Your task to perform on an android device: open app "Duolingo: language lessons" Image 0: 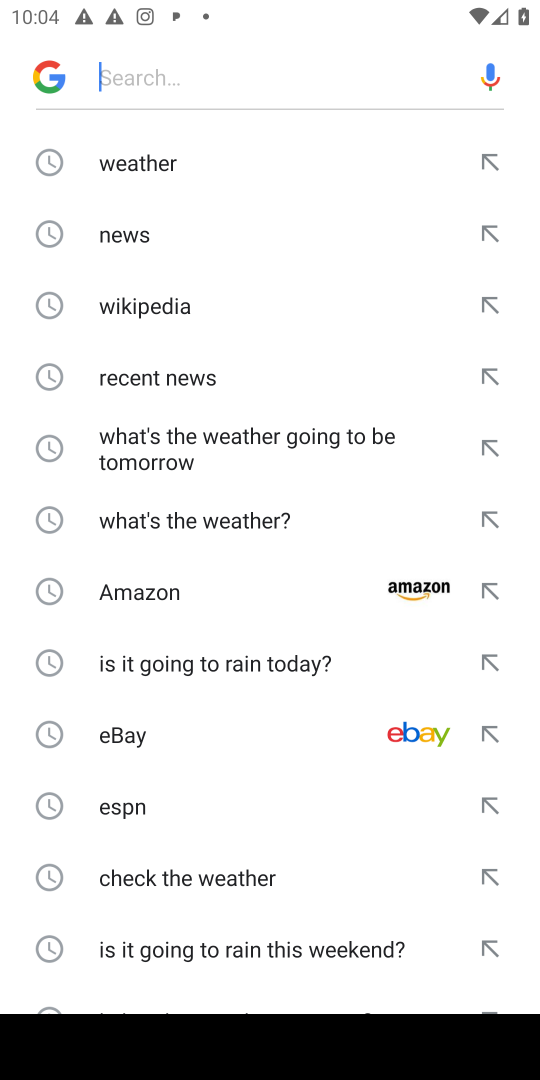
Step 0: press home button
Your task to perform on an android device: open app "Duolingo: language lessons" Image 1: 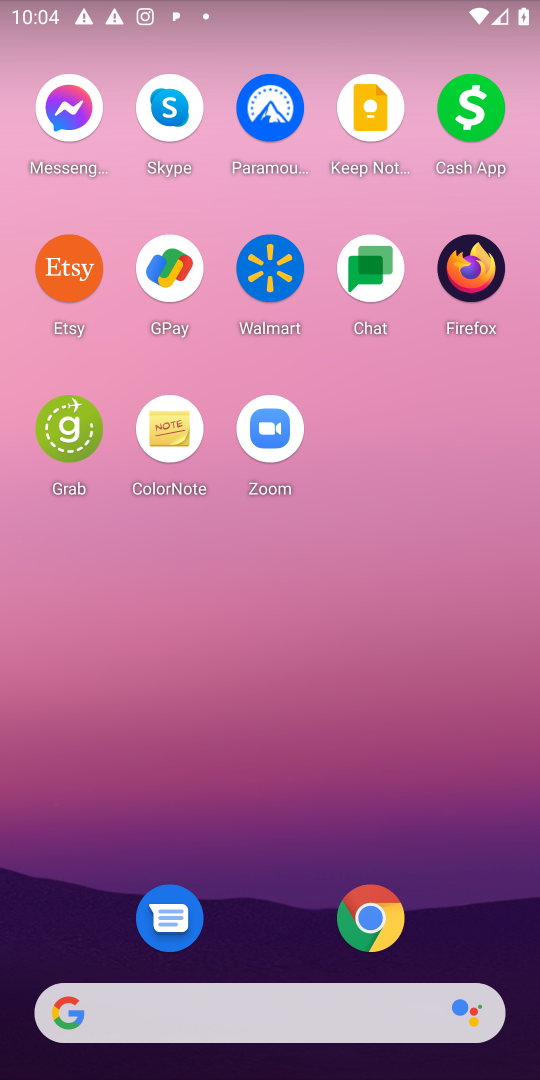
Step 1: press home button
Your task to perform on an android device: open app "Duolingo: language lessons" Image 2: 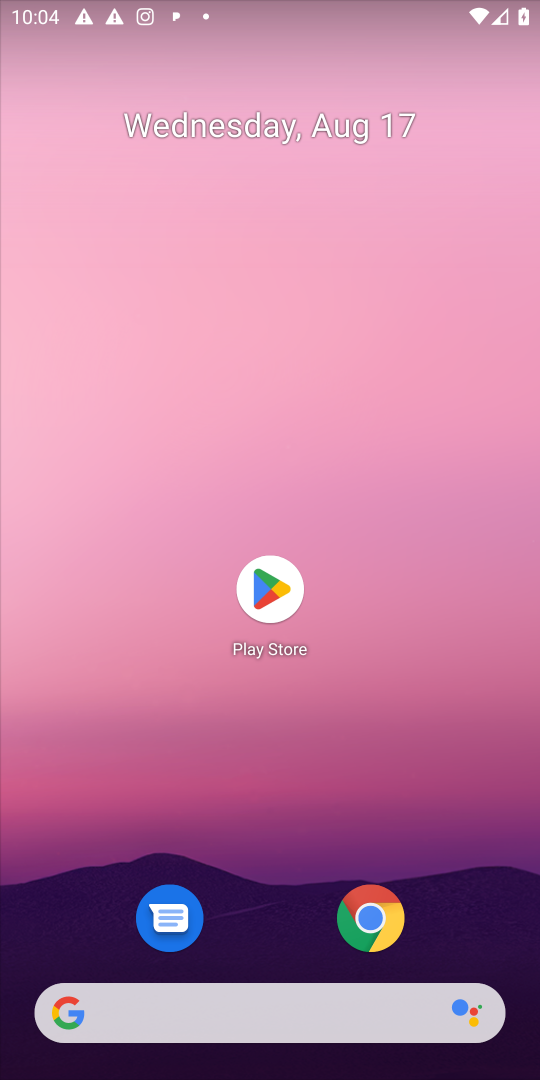
Step 2: click (264, 587)
Your task to perform on an android device: open app "Duolingo: language lessons" Image 3: 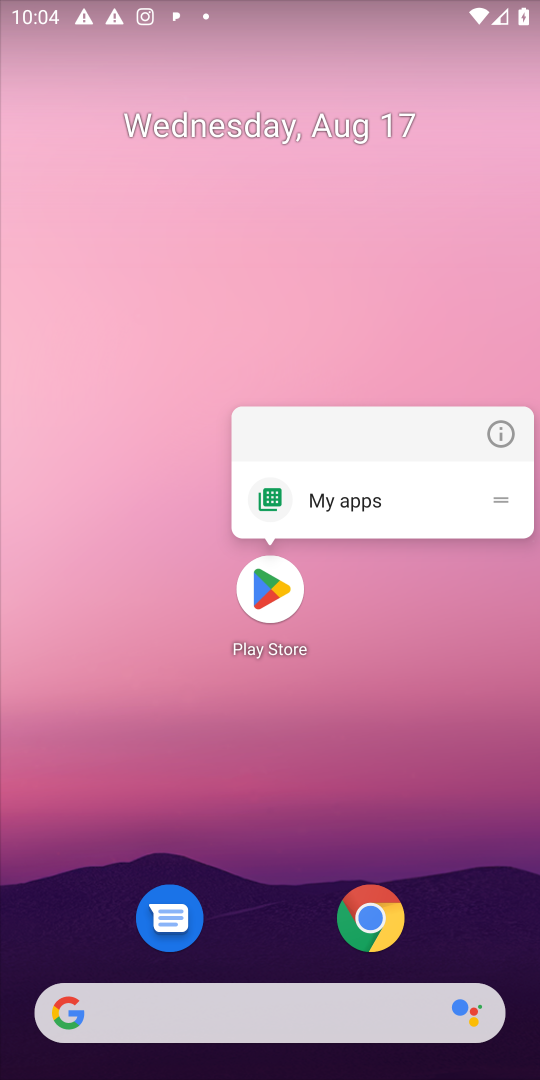
Step 3: click (264, 590)
Your task to perform on an android device: open app "Duolingo: language lessons" Image 4: 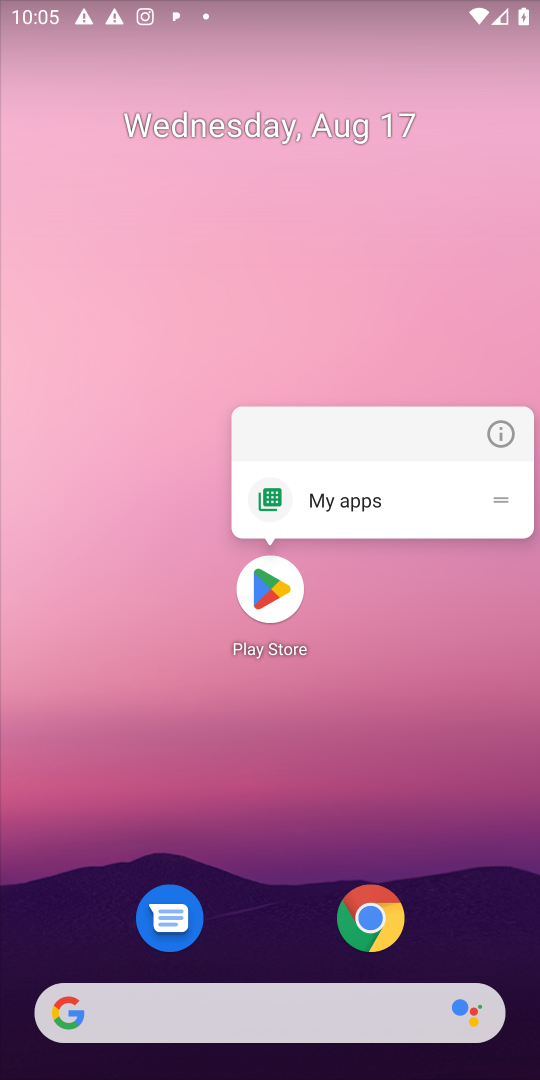
Step 4: click (264, 591)
Your task to perform on an android device: open app "Duolingo: language lessons" Image 5: 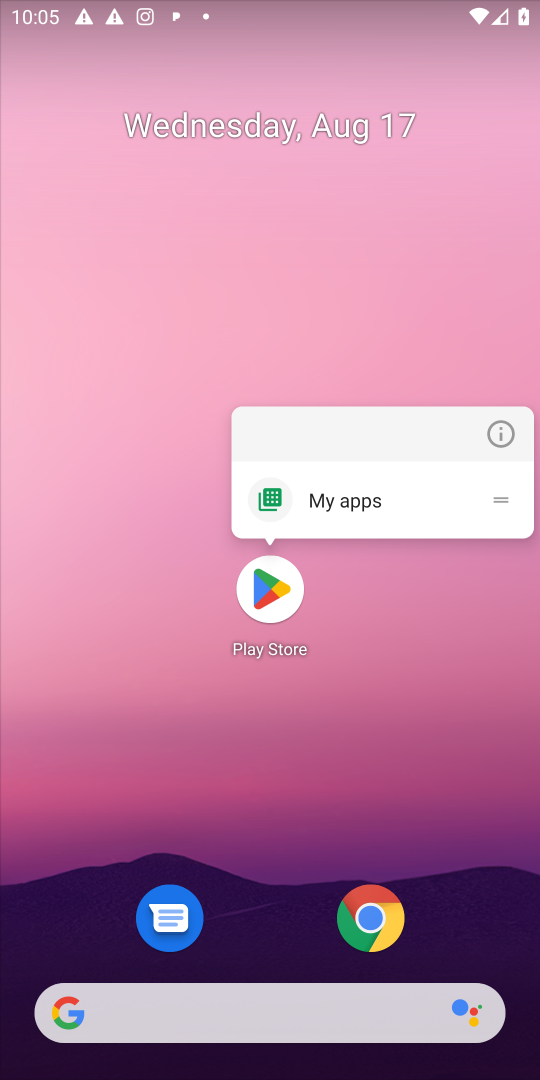
Step 5: click (273, 599)
Your task to perform on an android device: open app "Duolingo: language lessons" Image 6: 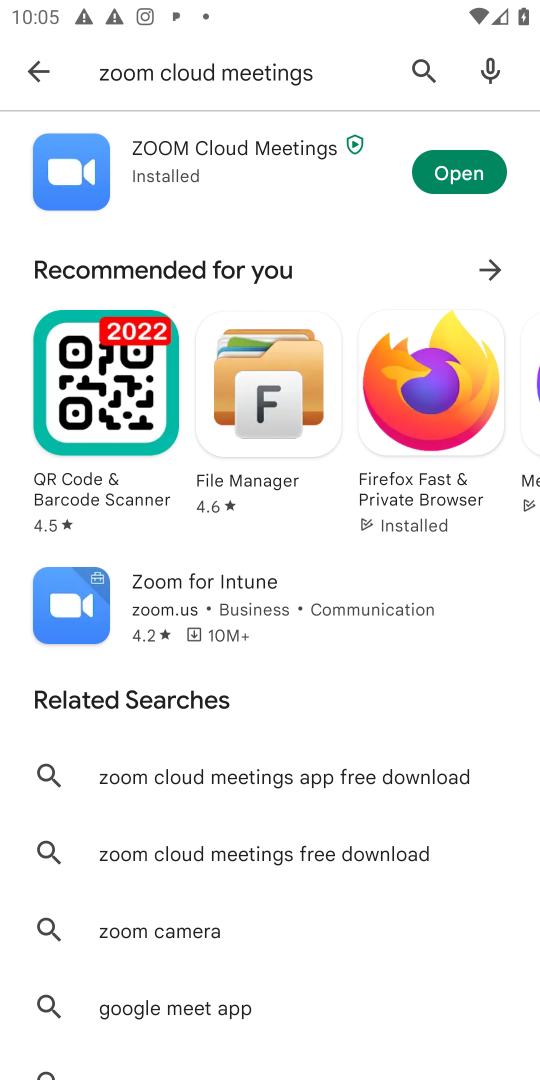
Step 6: click (421, 57)
Your task to perform on an android device: open app "Duolingo: language lessons" Image 7: 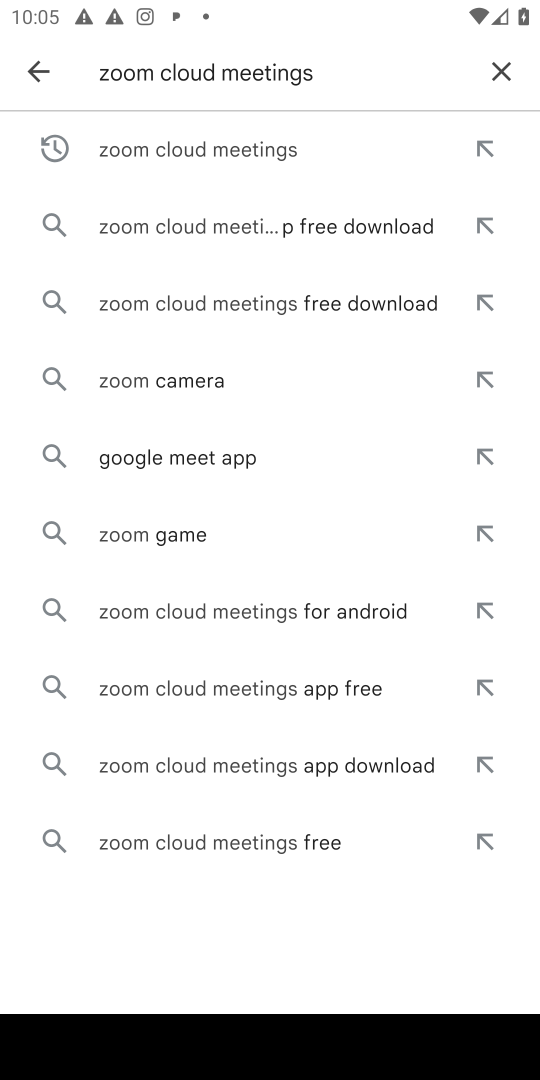
Step 7: click (491, 65)
Your task to perform on an android device: open app "Duolingo: language lessons" Image 8: 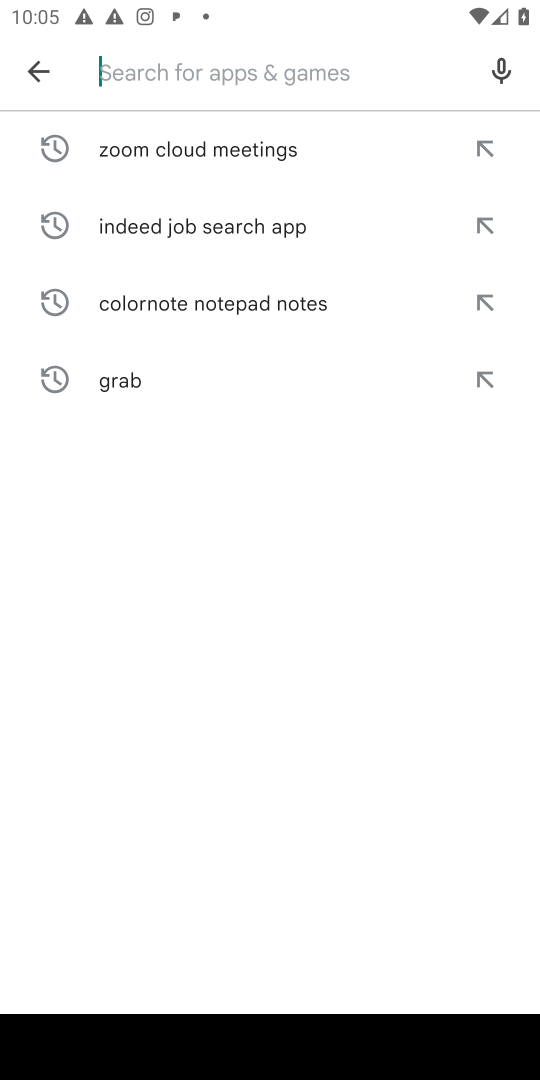
Step 8: type "Duolingo: language lessons"
Your task to perform on an android device: open app "Duolingo: language lessons" Image 9: 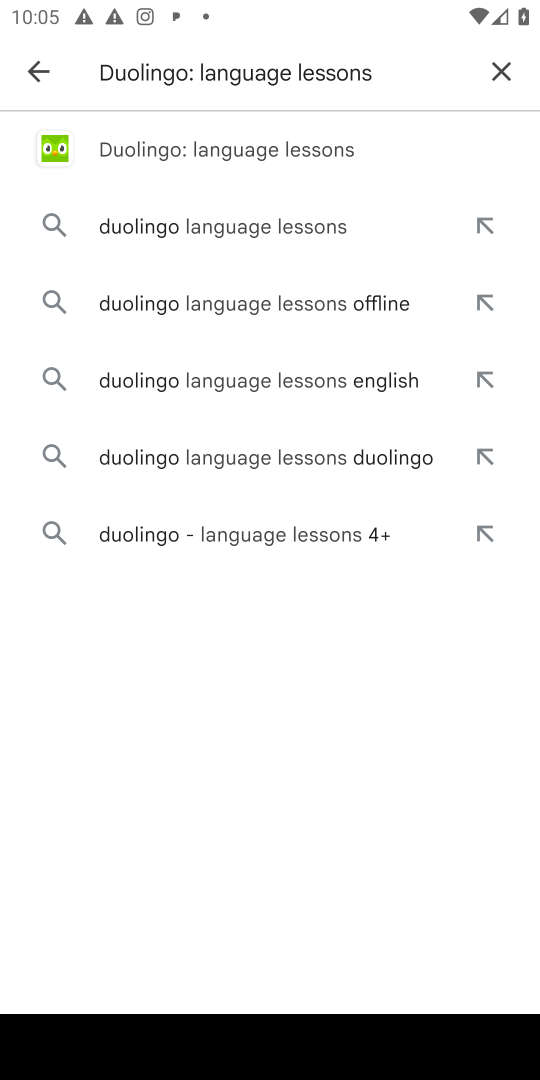
Step 9: click (320, 151)
Your task to perform on an android device: open app "Duolingo: language lessons" Image 10: 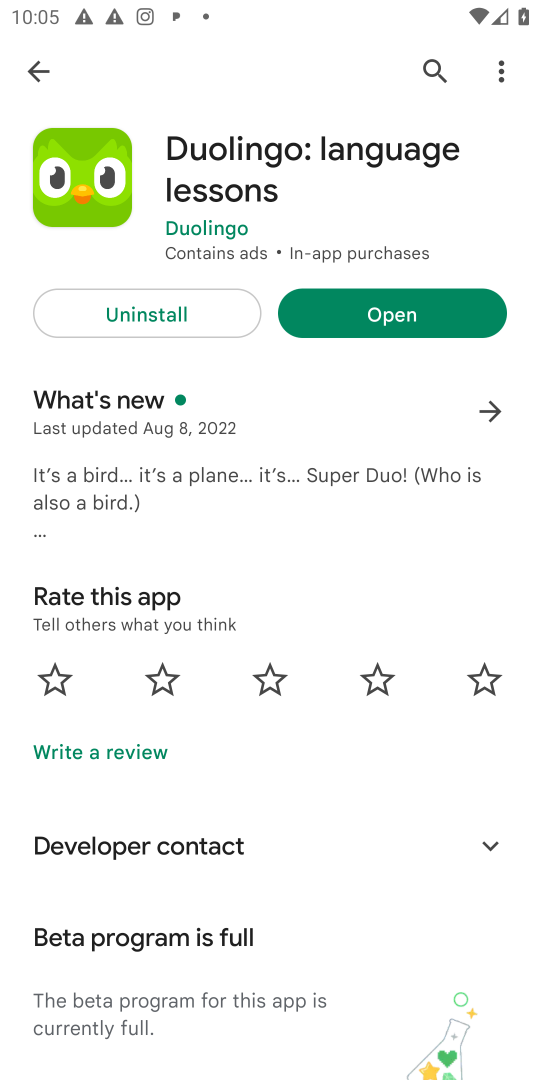
Step 10: click (343, 311)
Your task to perform on an android device: open app "Duolingo: language lessons" Image 11: 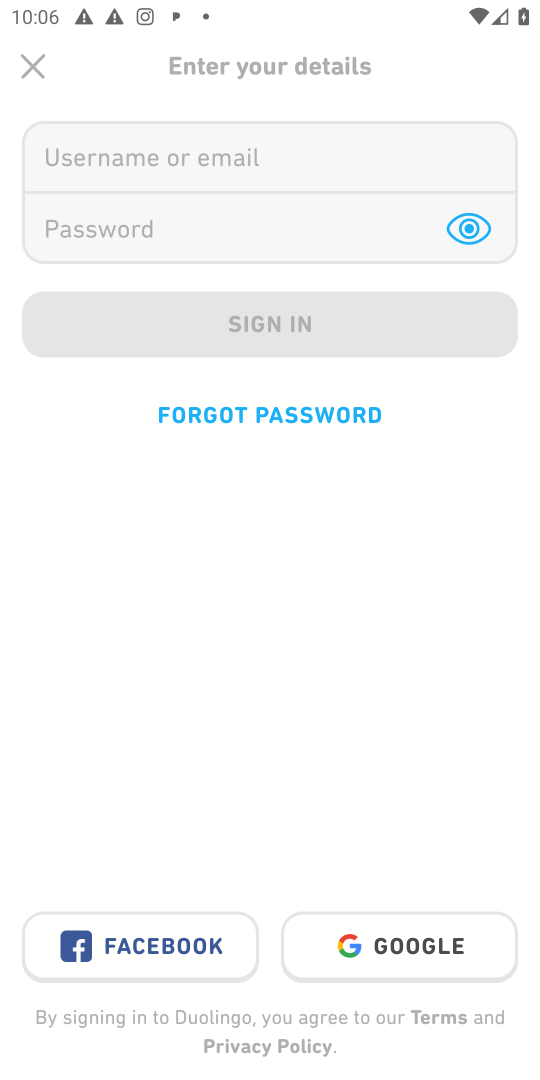
Step 11: task complete